Your task to perform on an android device: Go to location settings Image 0: 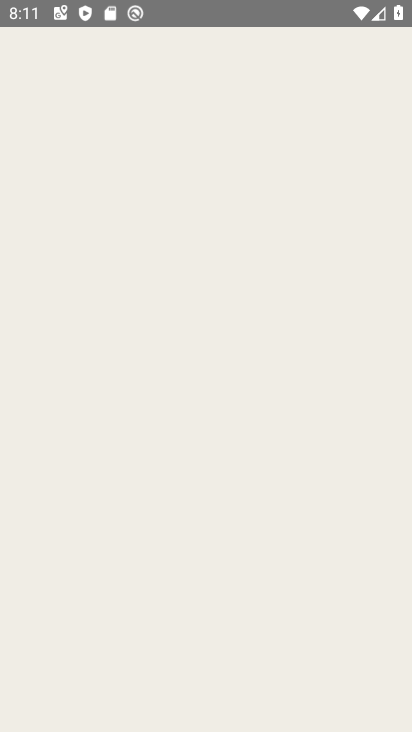
Step 0: click (267, 142)
Your task to perform on an android device: Go to location settings Image 1: 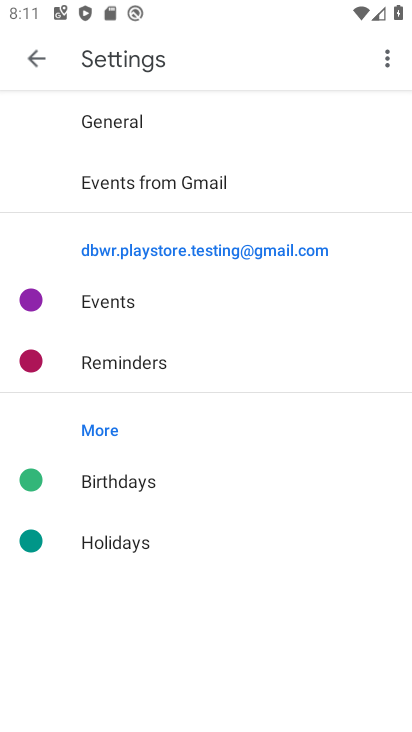
Step 1: press home button
Your task to perform on an android device: Go to location settings Image 2: 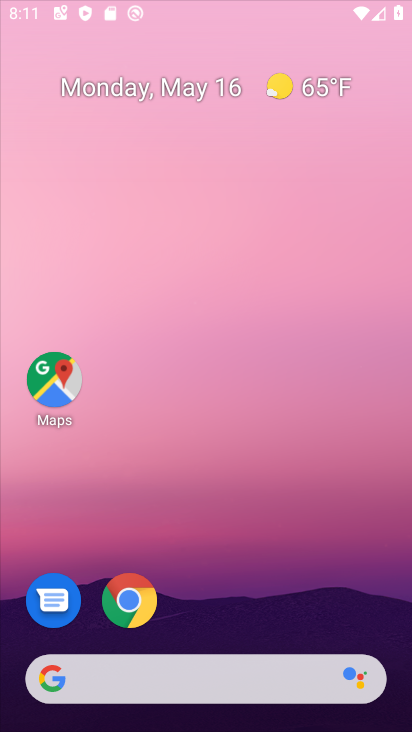
Step 2: drag from (238, 648) to (361, 103)
Your task to perform on an android device: Go to location settings Image 3: 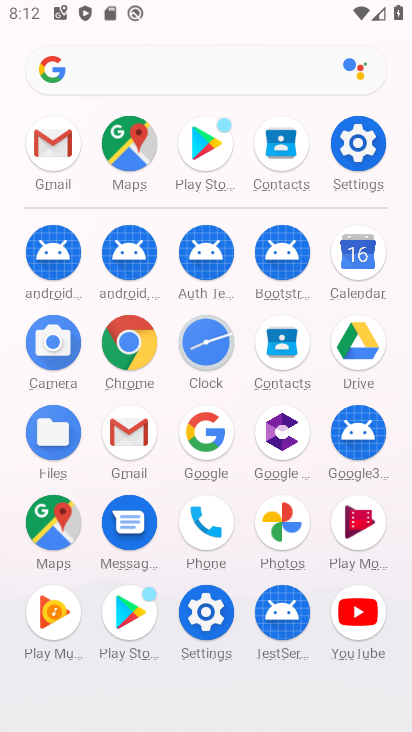
Step 3: click (362, 134)
Your task to perform on an android device: Go to location settings Image 4: 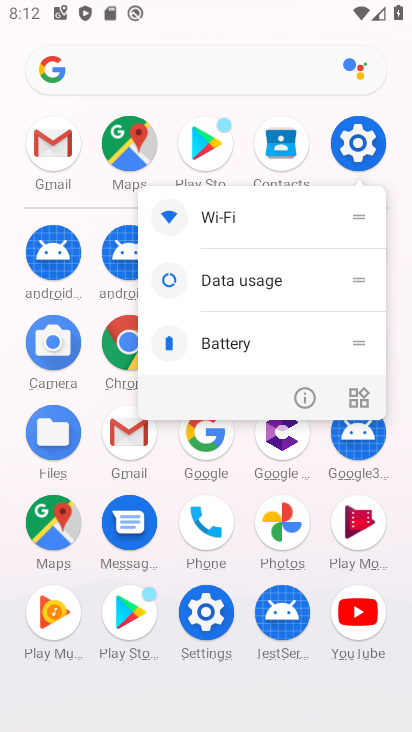
Step 4: click (308, 398)
Your task to perform on an android device: Go to location settings Image 5: 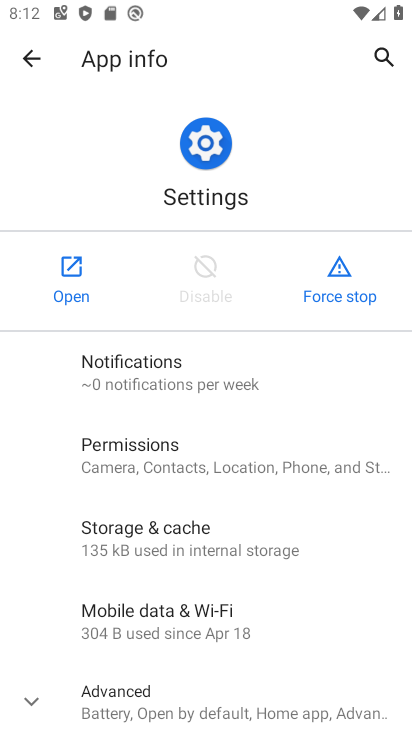
Step 5: click (74, 290)
Your task to perform on an android device: Go to location settings Image 6: 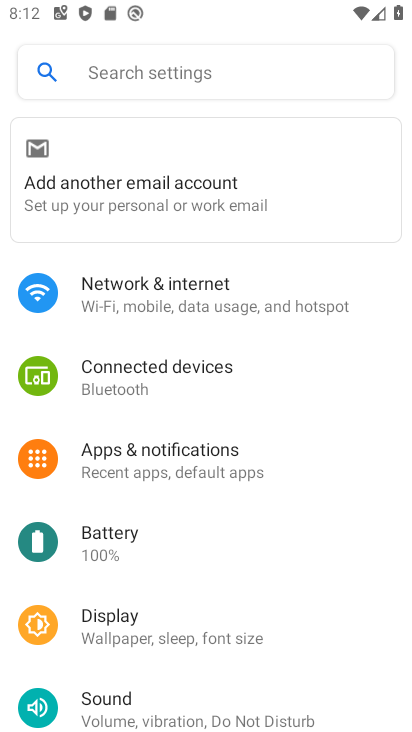
Step 6: drag from (142, 647) to (250, 157)
Your task to perform on an android device: Go to location settings Image 7: 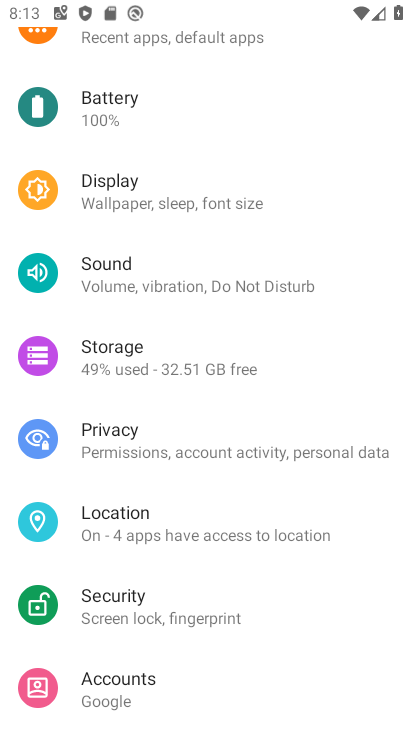
Step 7: drag from (258, 669) to (276, 287)
Your task to perform on an android device: Go to location settings Image 8: 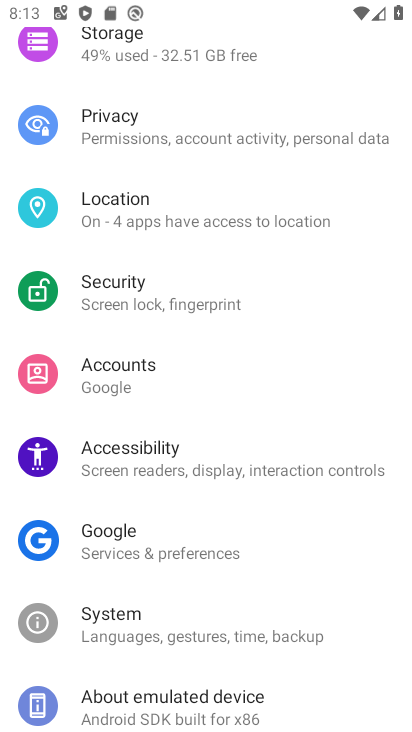
Step 8: click (180, 347)
Your task to perform on an android device: Go to location settings Image 9: 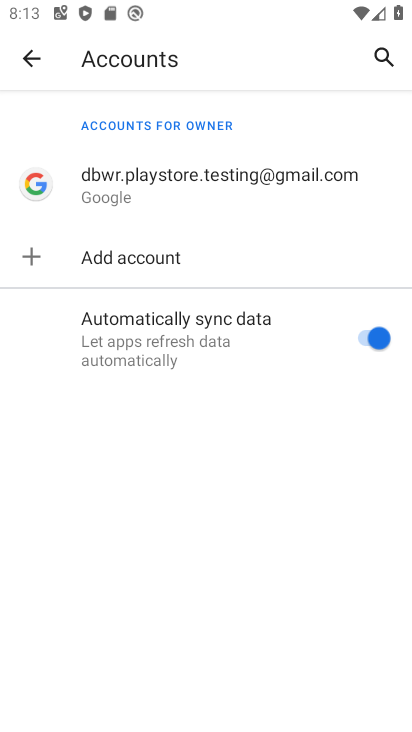
Step 9: press back button
Your task to perform on an android device: Go to location settings Image 10: 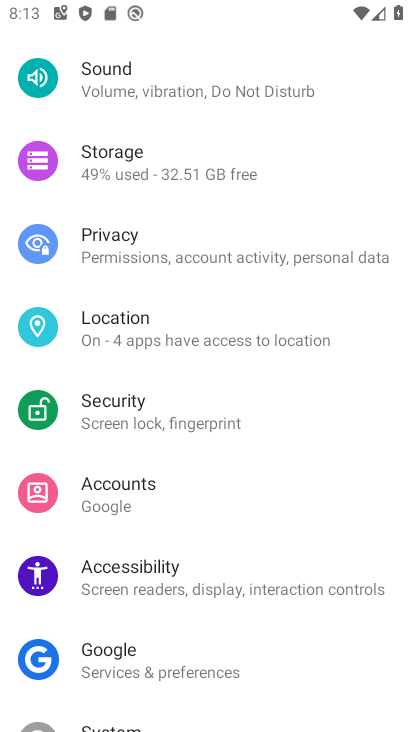
Step 10: click (170, 327)
Your task to perform on an android device: Go to location settings Image 11: 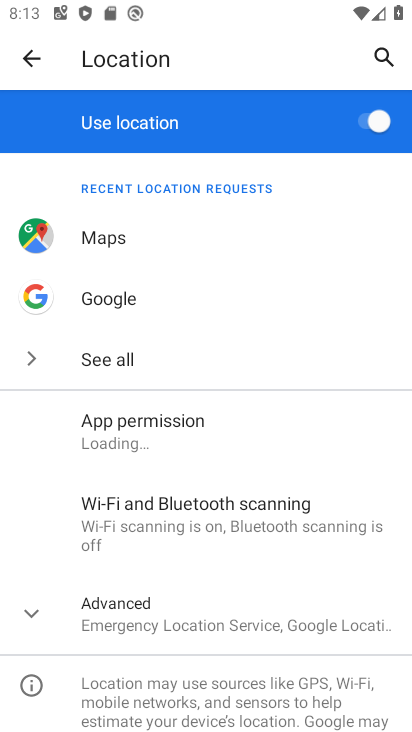
Step 11: task complete